Your task to perform on an android device: Go to Maps Image 0: 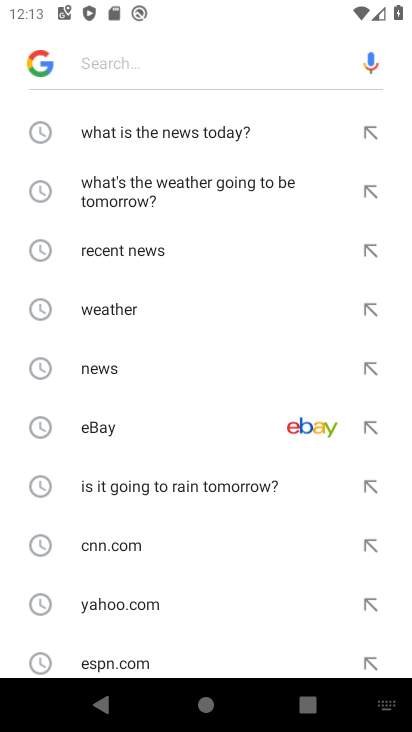
Step 0: press home button
Your task to perform on an android device: Go to Maps Image 1: 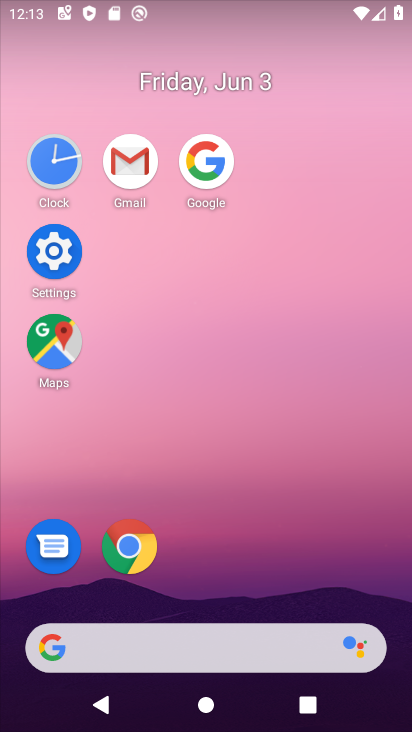
Step 1: click (67, 360)
Your task to perform on an android device: Go to Maps Image 2: 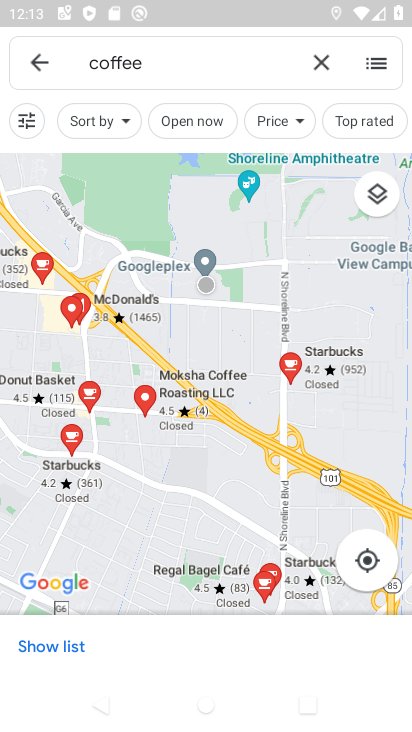
Step 2: task complete